Your task to perform on an android device: add a contact in the contacts app Image 0: 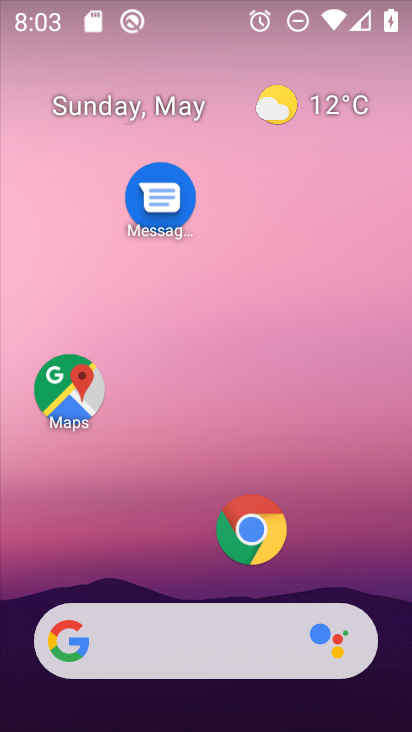
Step 0: drag from (203, 585) to (239, 94)
Your task to perform on an android device: add a contact in the contacts app Image 1: 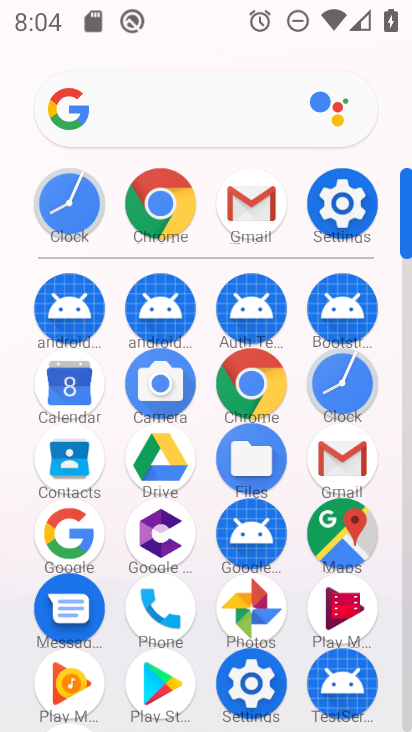
Step 1: click (72, 454)
Your task to perform on an android device: add a contact in the contacts app Image 2: 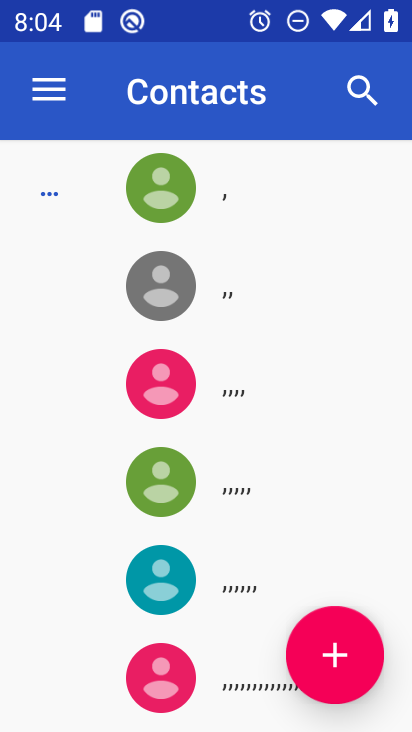
Step 2: click (322, 644)
Your task to perform on an android device: add a contact in the contacts app Image 3: 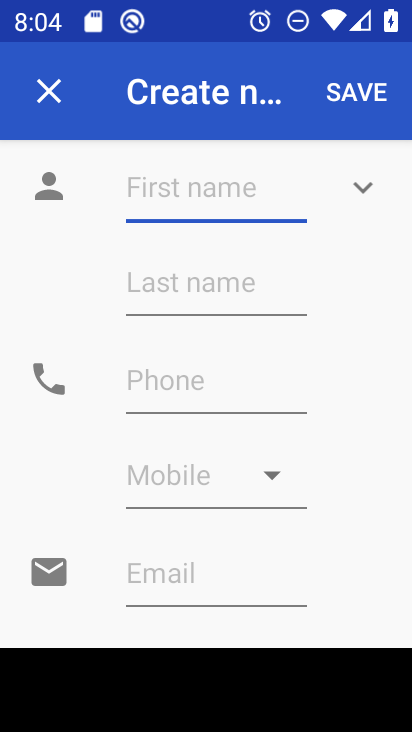
Step 3: type "vhdtrcyhg"
Your task to perform on an android device: add a contact in the contacts app Image 4: 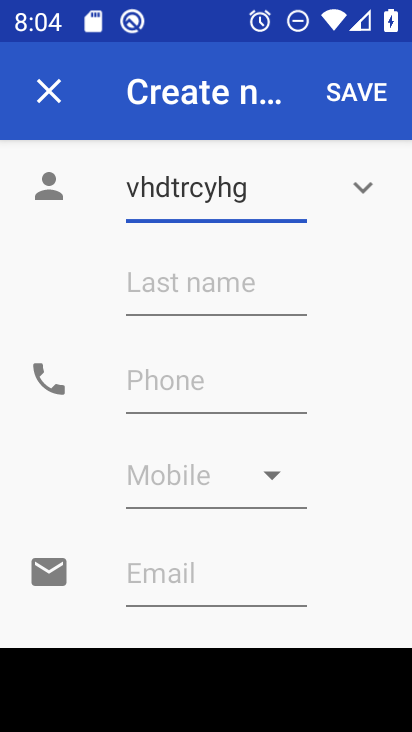
Step 4: click (365, 98)
Your task to perform on an android device: add a contact in the contacts app Image 5: 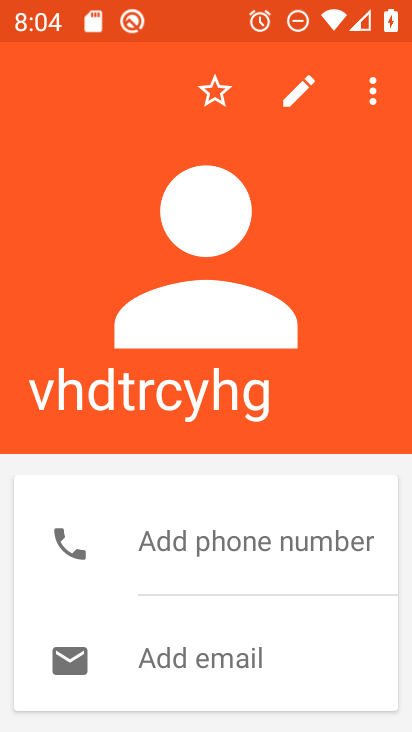
Step 5: task complete